Your task to perform on an android device: toggle priority inbox in the gmail app Image 0: 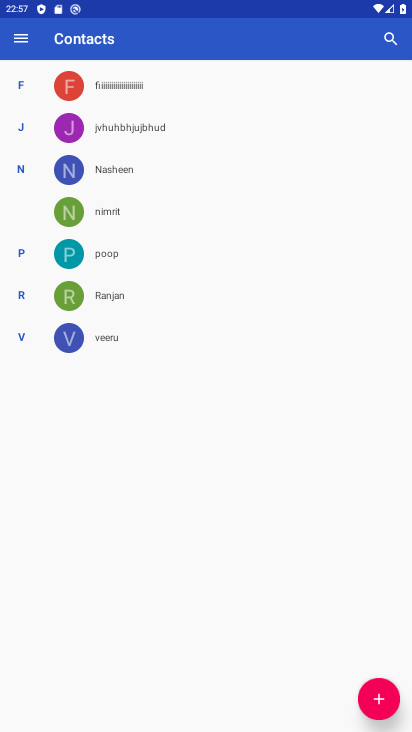
Step 0: press home button
Your task to perform on an android device: toggle priority inbox in the gmail app Image 1: 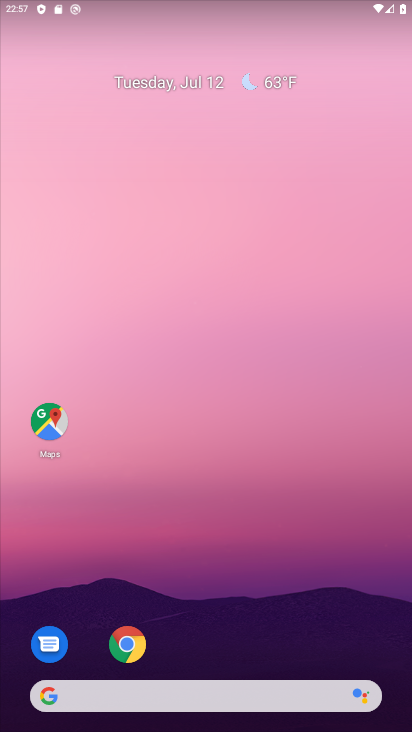
Step 1: drag from (227, 634) to (149, 118)
Your task to perform on an android device: toggle priority inbox in the gmail app Image 2: 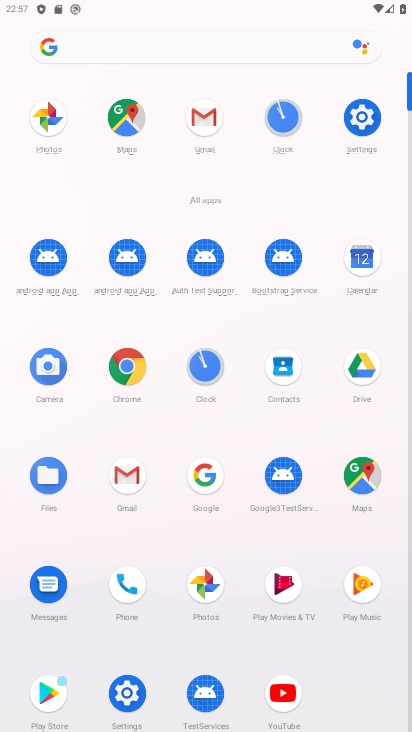
Step 2: click (210, 123)
Your task to perform on an android device: toggle priority inbox in the gmail app Image 3: 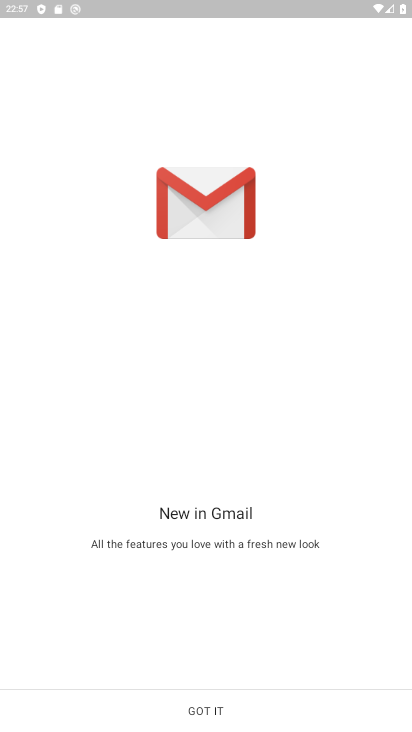
Step 3: click (217, 714)
Your task to perform on an android device: toggle priority inbox in the gmail app Image 4: 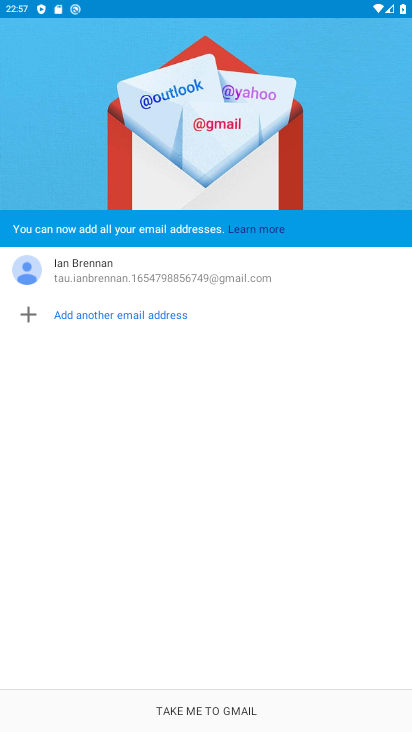
Step 4: click (217, 716)
Your task to perform on an android device: toggle priority inbox in the gmail app Image 5: 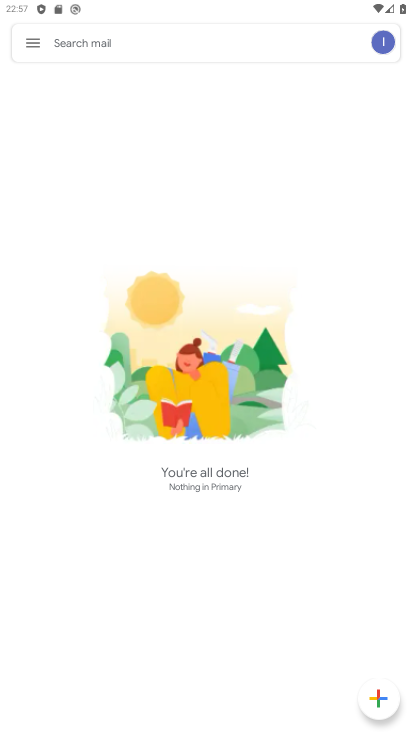
Step 5: click (33, 54)
Your task to perform on an android device: toggle priority inbox in the gmail app Image 6: 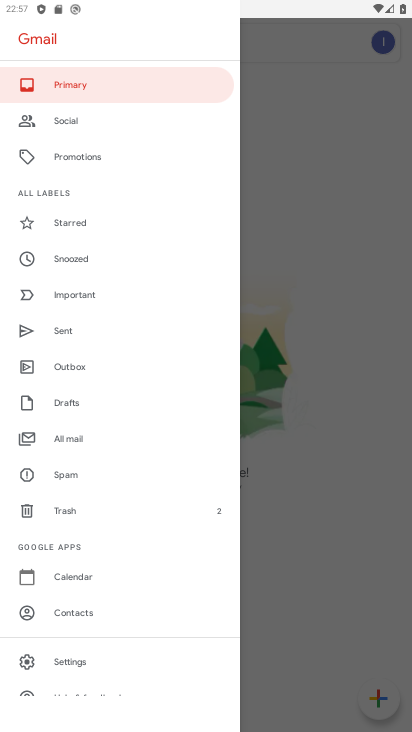
Step 6: click (87, 654)
Your task to perform on an android device: toggle priority inbox in the gmail app Image 7: 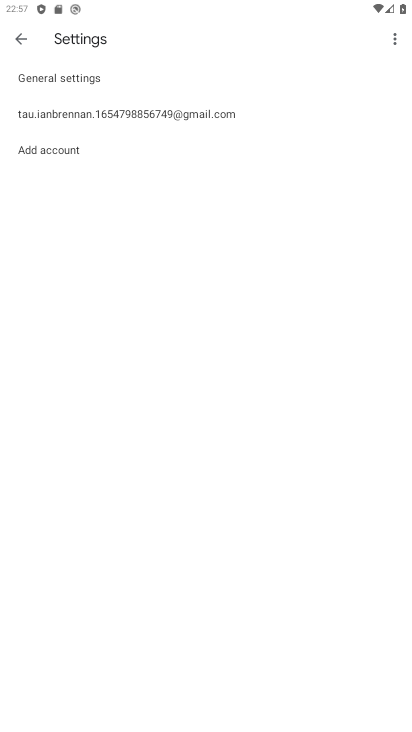
Step 7: click (197, 110)
Your task to perform on an android device: toggle priority inbox in the gmail app Image 8: 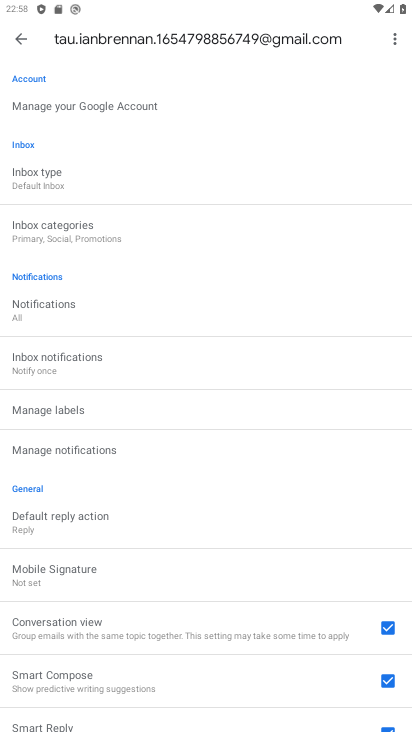
Step 8: click (85, 184)
Your task to perform on an android device: toggle priority inbox in the gmail app Image 9: 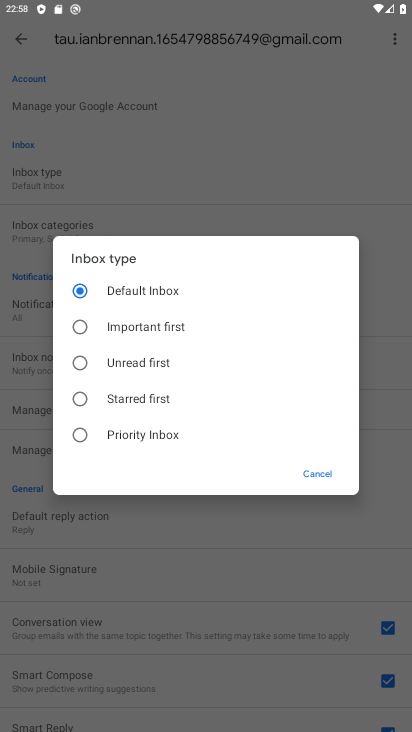
Step 9: click (139, 433)
Your task to perform on an android device: toggle priority inbox in the gmail app Image 10: 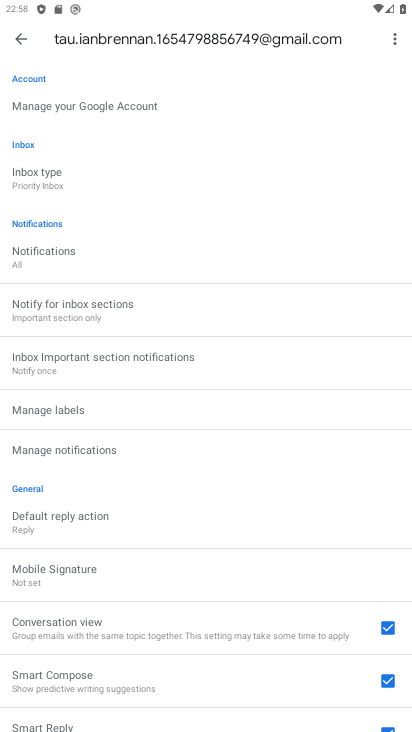
Step 10: task complete